Your task to perform on an android device: toggle airplane mode Image 0: 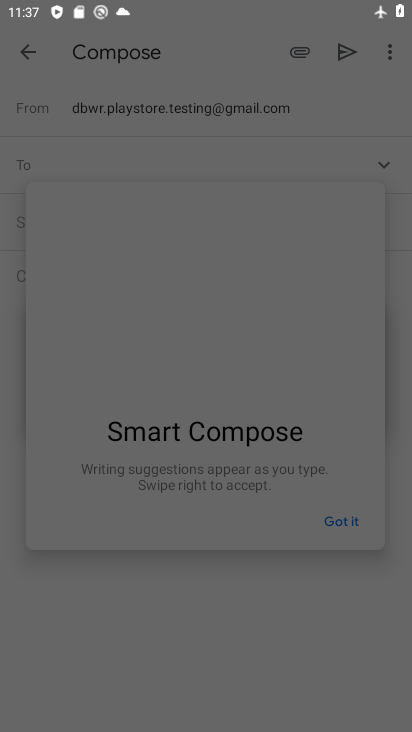
Step 0: press home button
Your task to perform on an android device: toggle airplane mode Image 1: 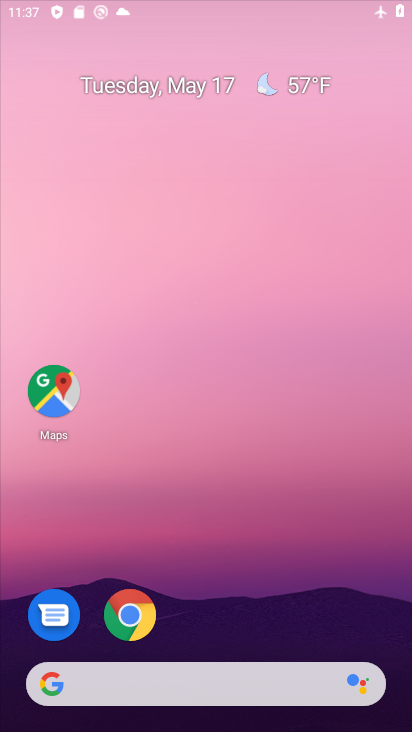
Step 1: drag from (381, 612) to (300, 60)
Your task to perform on an android device: toggle airplane mode Image 2: 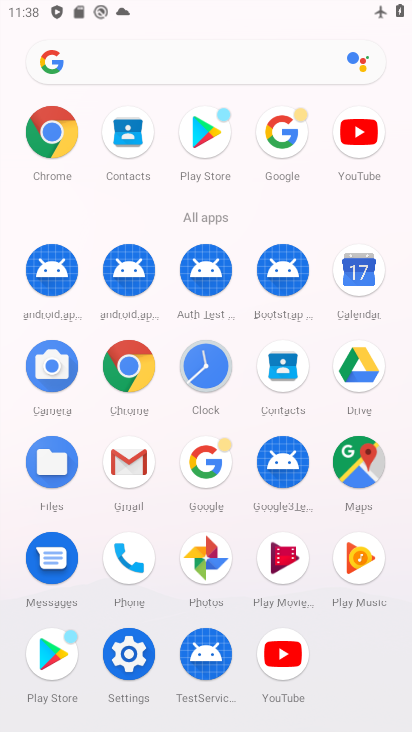
Step 2: drag from (235, 29) to (281, 533)
Your task to perform on an android device: toggle airplane mode Image 3: 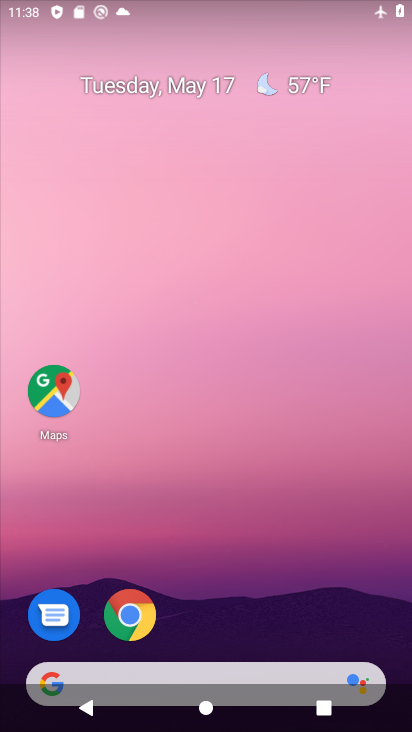
Step 3: drag from (264, 11) to (328, 527)
Your task to perform on an android device: toggle airplane mode Image 4: 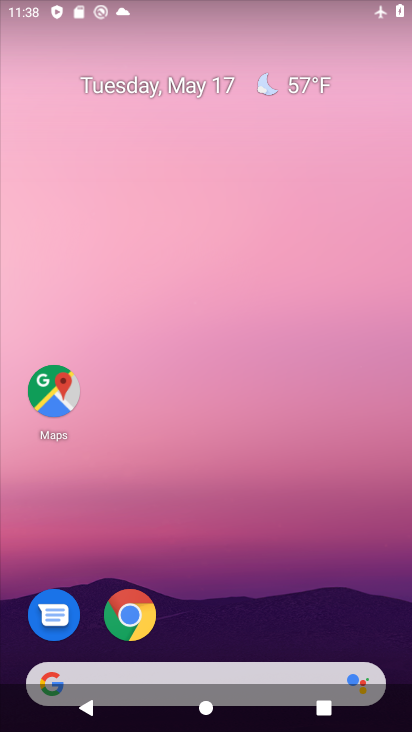
Step 4: drag from (239, 0) to (270, 582)
Your task to perform on an android device: toggle airplane mode Image 5: 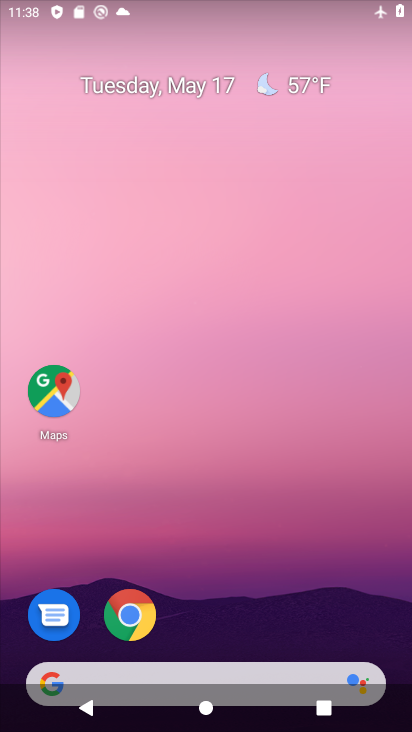
Step 5: drag from (270, 6) to (302, 588)
Your task to perform on an android device: toggle airplane mode Image 6: 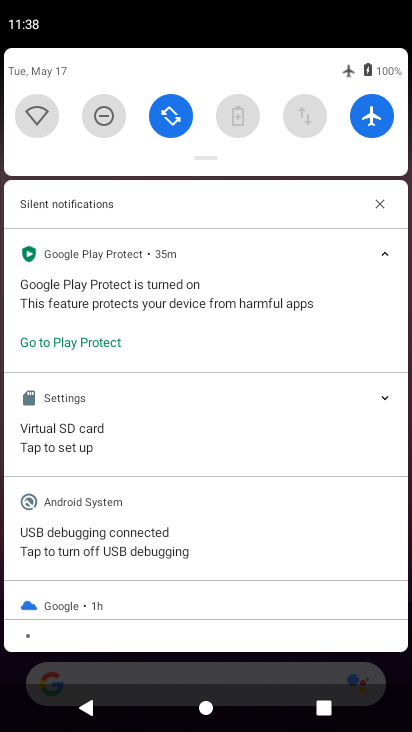
Step 6: click (372, 123)
Your task to perform on an android device: toggle airplane mode Image 7: 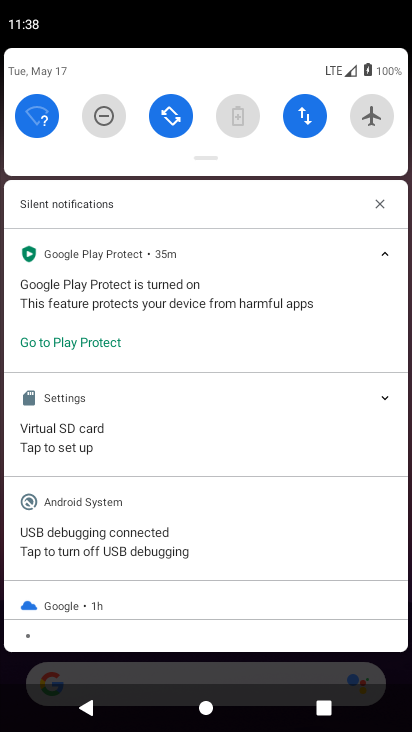
Step 7: task complete